Your task to perform on an android device: Go to Amazon Image 0: 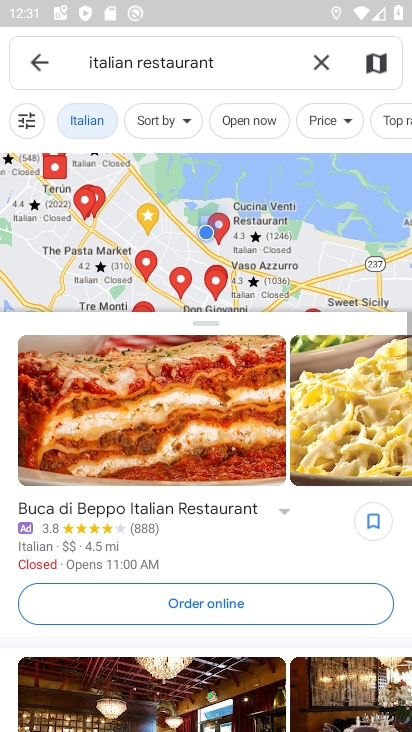
Step 0: press home button
Your task to perform on an android device: Go to Amazon Image 1: 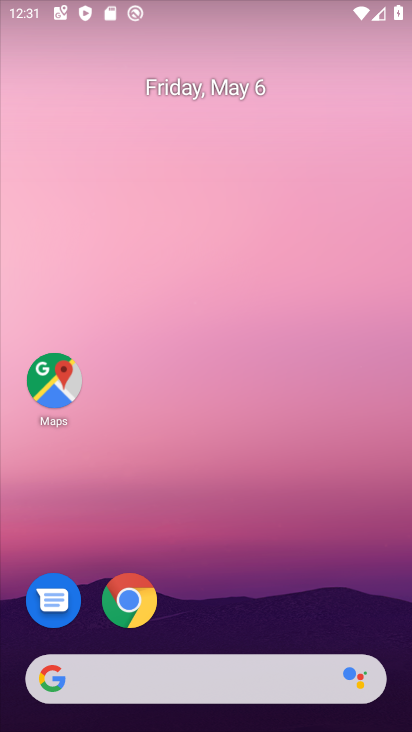
Step 1: drag from (307, 611) to (291, 58)
Your task to perform on an android device: Go to Amazon Image 2: 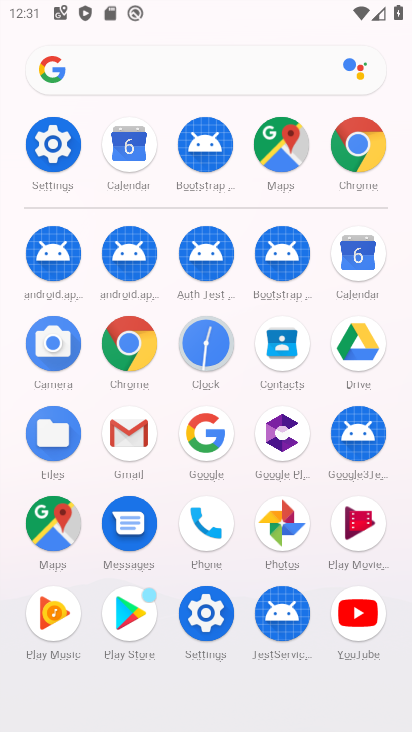
Step 2: click (127, 356)
Your task to perform on an android device: Go to Amazon Image 3: 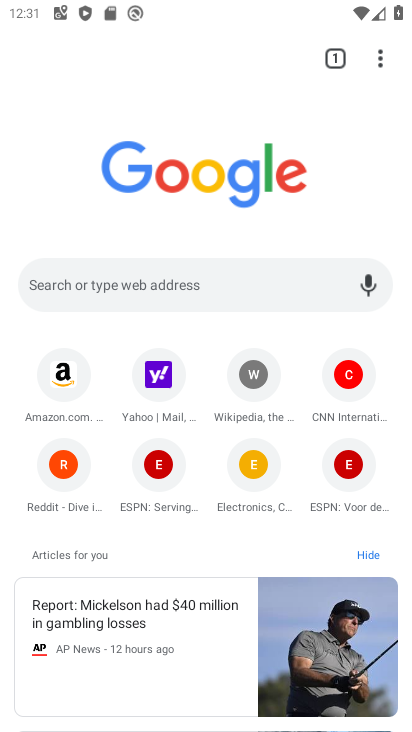
Step 3: click (76, 373)
Your task to perform on an android device: Go to Amazon Image 4: 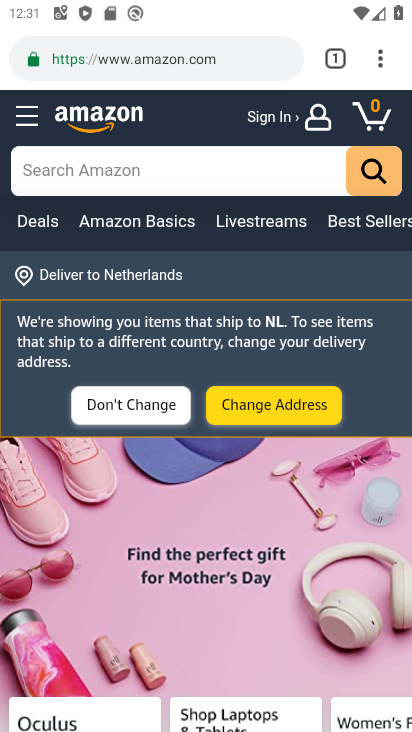
Step 4: task complete